Your task to perform on an android device: Open notification settings Image 0: 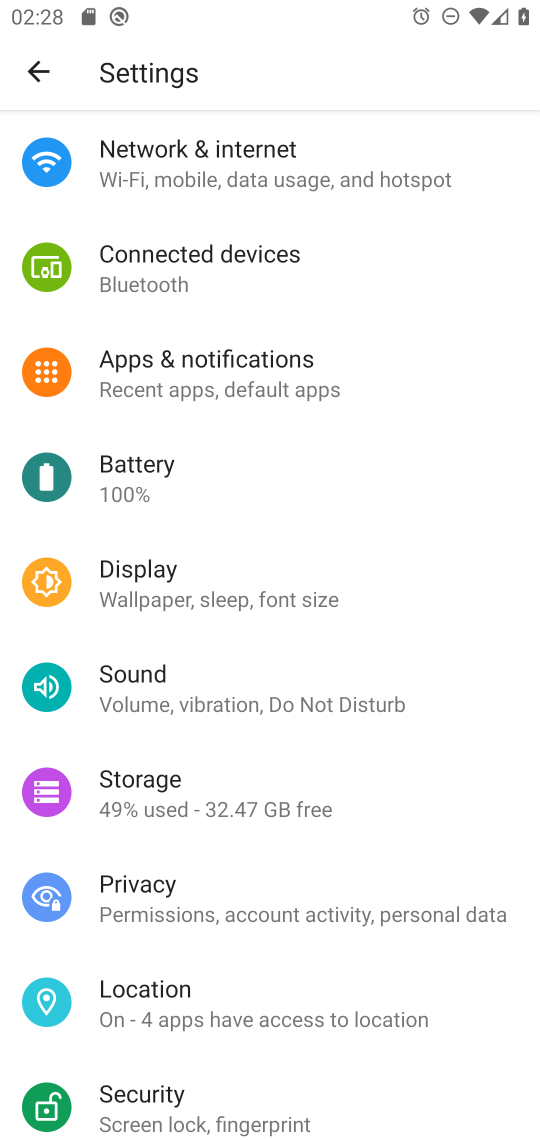
Step 0: click (296, 370)
Your task to perform on an android device: Open notification settings Image 1: 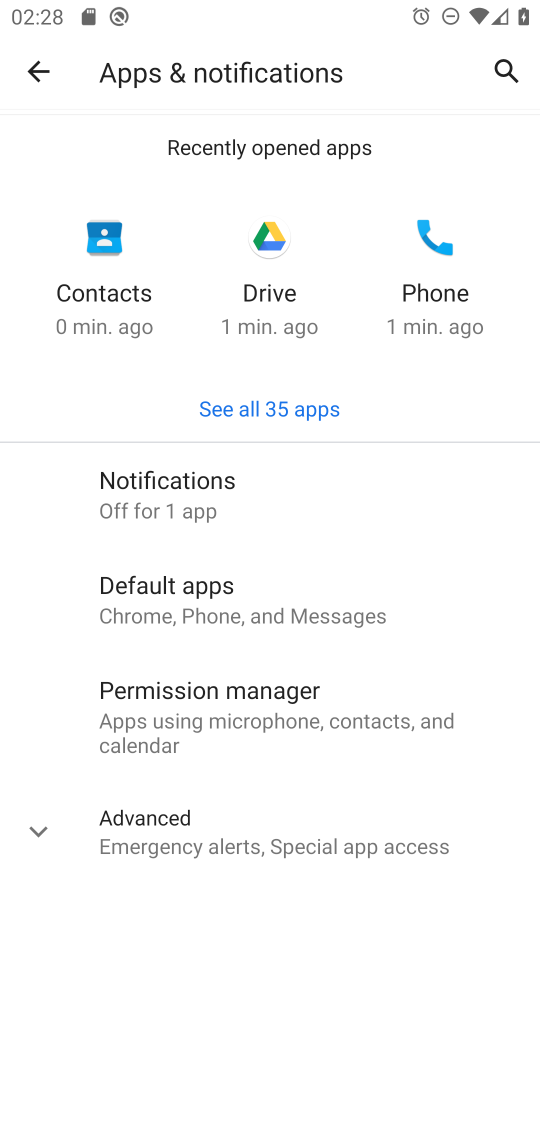
Step 1: click (209, 508)
Your task to perform on an android device: Open notification settings Image 2: 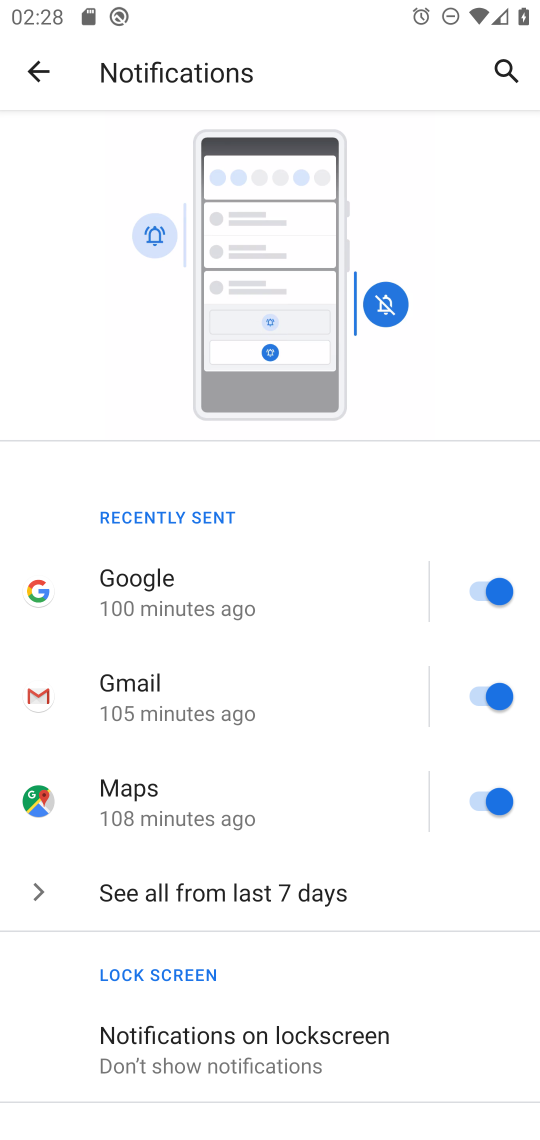
Step 2: task complete